Your task to perform on an android device: change notification settings in the gmail app Image 0: 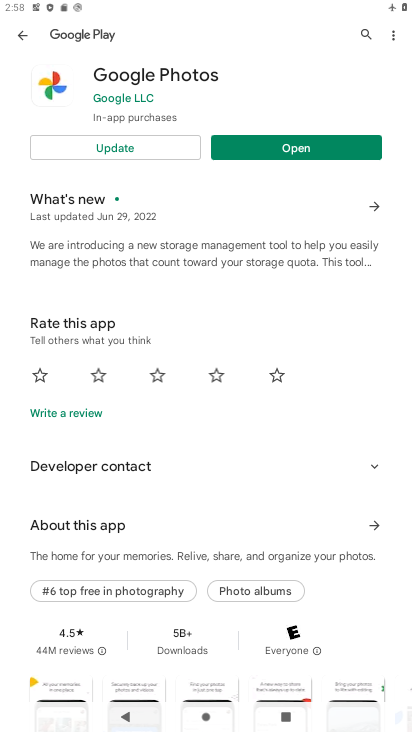
Step 0: press home button
Your task to perform on an android device: change notification settings in the gmail app Image 1: 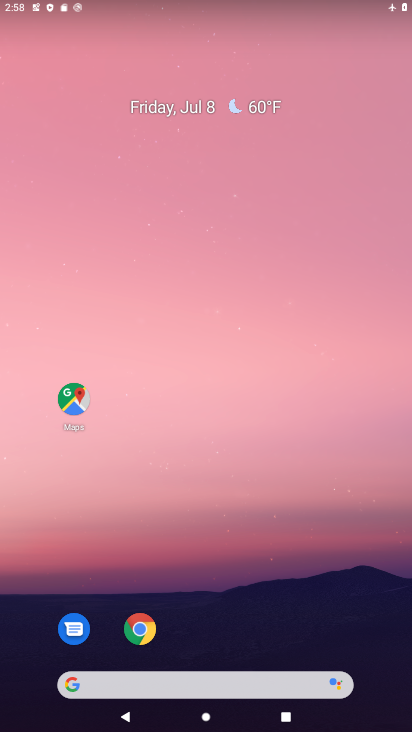
Step 1: drag from (190, 631) to (228, 233)
Your task to perform on an android device: change notification settings in the gmail app Image 2: 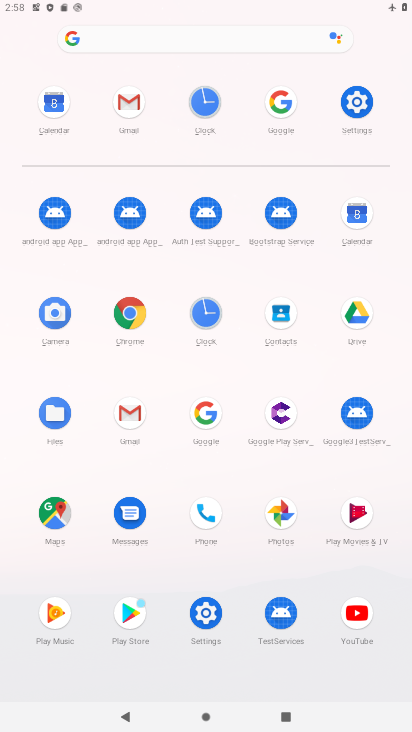
Step 2: click (133, 128)
Your task to perform on an android device: change notification settings in the gmail app Image 3: 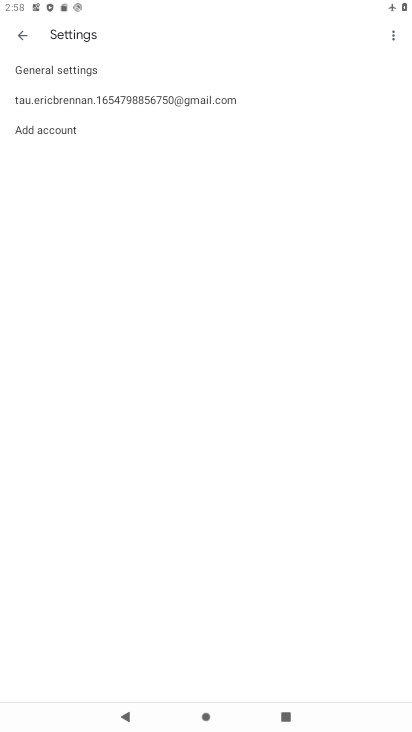
Step 3: click (20, 34)
Your task to perform on an android device: change notification settings in the gmail app Image 4: 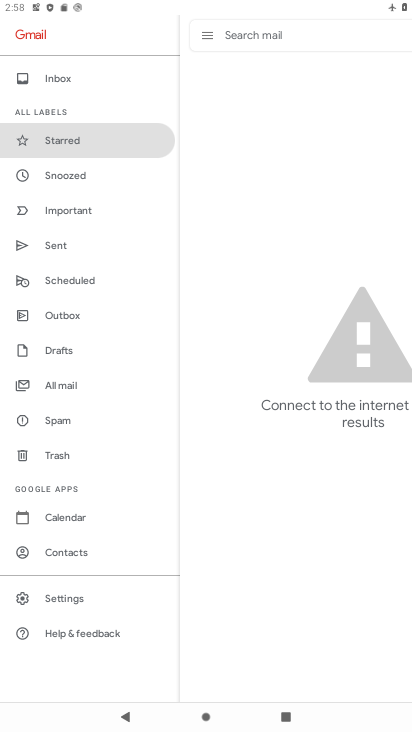
Step 4: click (77, 592)
Your task to perform on an android device: change notification settings in the gmail app Image 5: 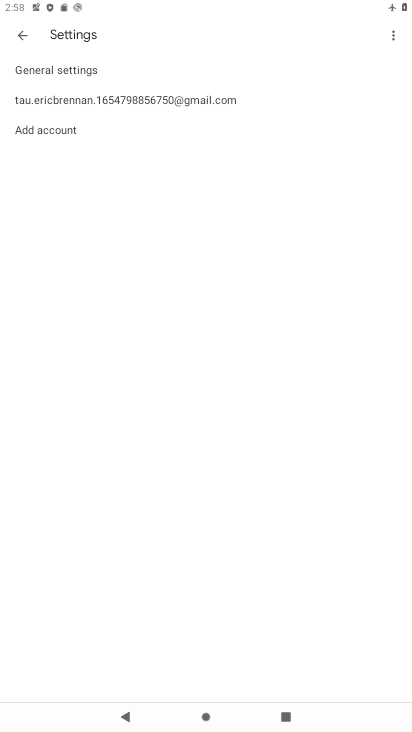
Step 5: click (188, 106)
Your task to perform on an android device: change notification settings in the gmail app Image 6: 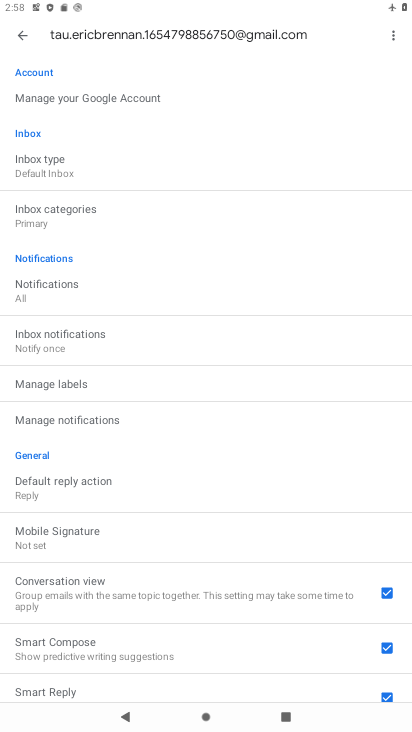
Step 6: click (85, 412)
Your task to perform on an android device: change notification settings in the gmail app Image 7: 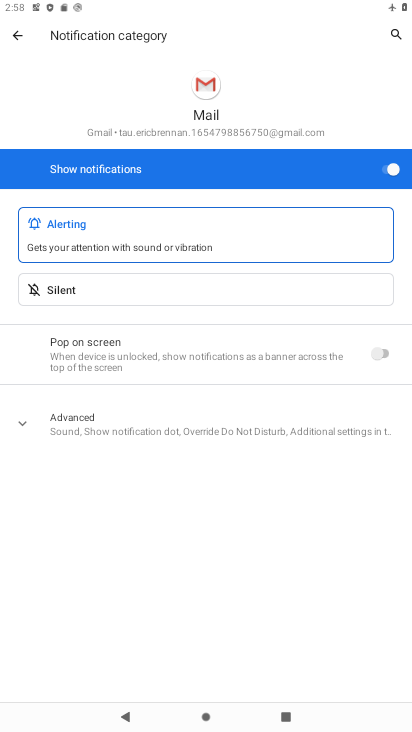
Step 7: click (385, 167)
Your task to perform on an android device: change notification settings in the gmail app Image 8: 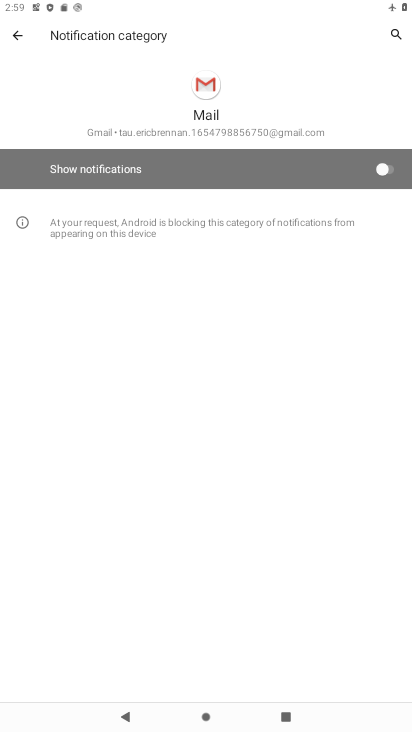
Step 8: task complete